Your task to perform on an android device: Open Chrome and go to the settings page Image 0: 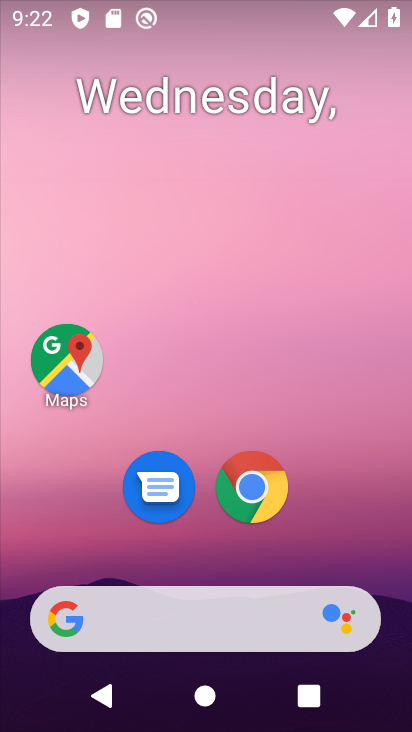
Step 0: click (227, 480)
Your task to perform on an android device: Open Chrome and go to the settings page Image 1: 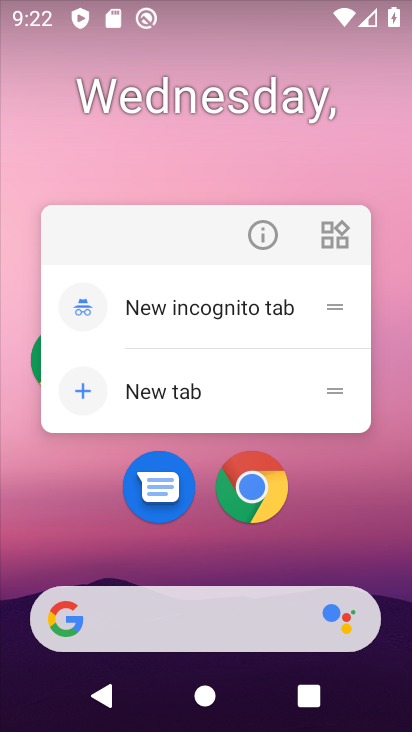
Step 1: click (254, 506)
Your task to perform on an android device: Open Chrome and go to the settings page Image 2: 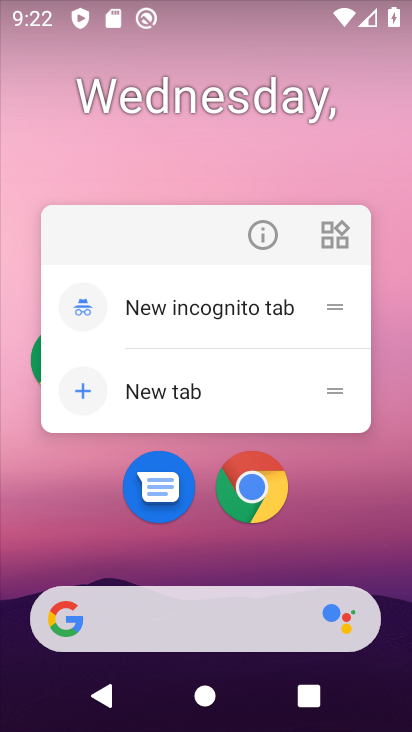
Step 2: click (266, 241)
Your task to perform on an android device: Open Chrome and go to the settings page Image 3: 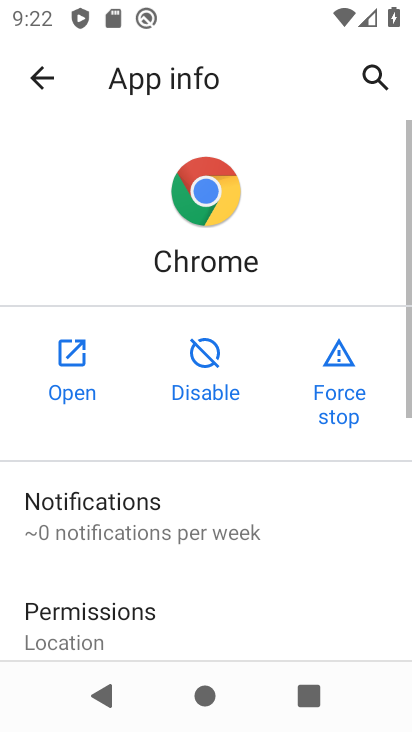
Step 3: click (85, 368)
Your task to perform on an android device: Open Chrome and go to the settings page Image 4: 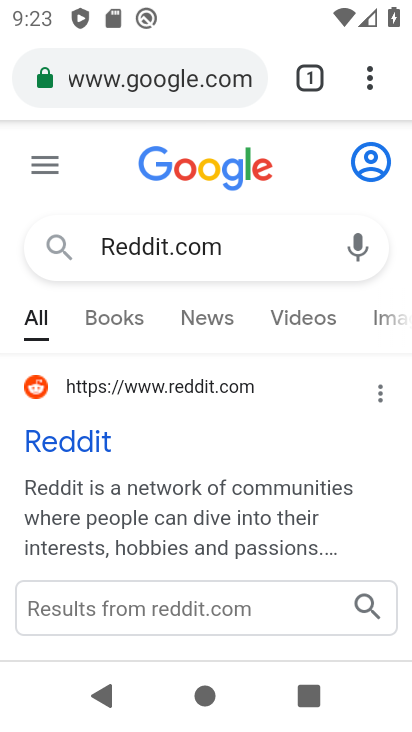
Step 4: click (372, 73)
Your task to perform on an android device: Open Chrome and go to the settings page Image 5: 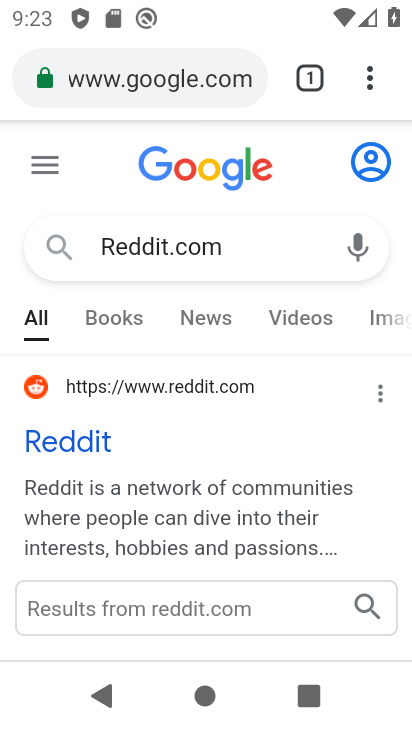
Step 5: click (360, 79)
Your task to perform on an android device: Open Chrome and go to the settings page Image 6: 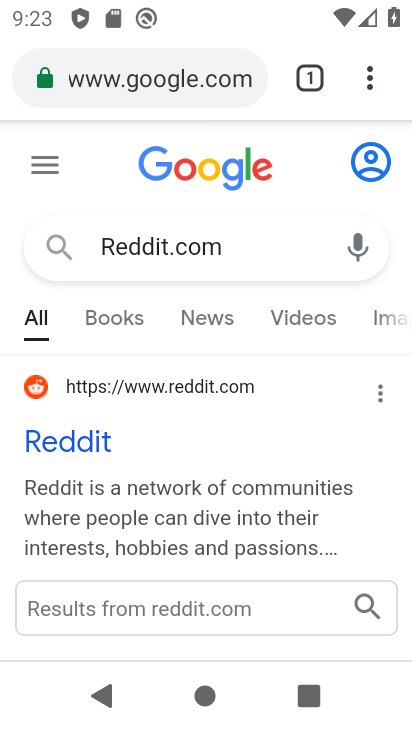
Step 6: click (367, 71)
Your task to perform on an android device: Open Chrome and go to the settings page Image 7: 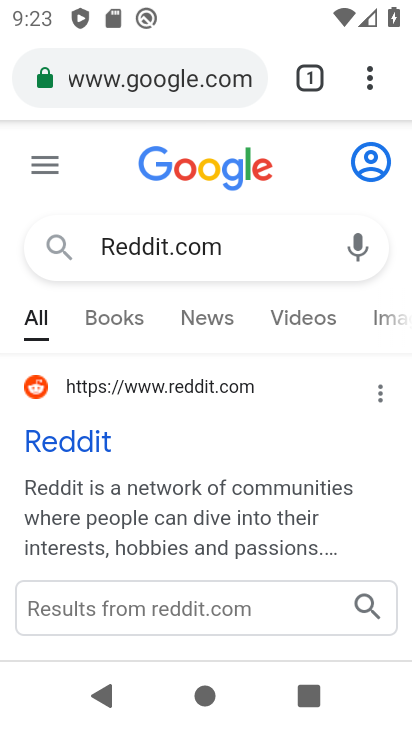
Step 7: click (375, 80)
Your task to perform on an android device: Open Chrome and go to the settings page Image 8: 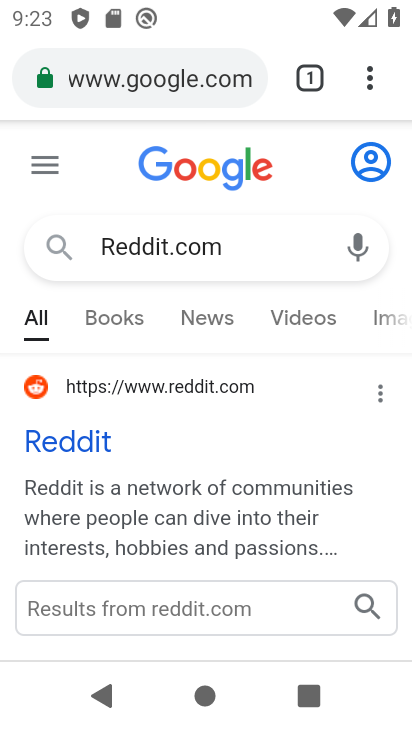
Step 8: click (375, 80)
Your task to perform on an android device: Open Chrome and go to the settings page Image 9: 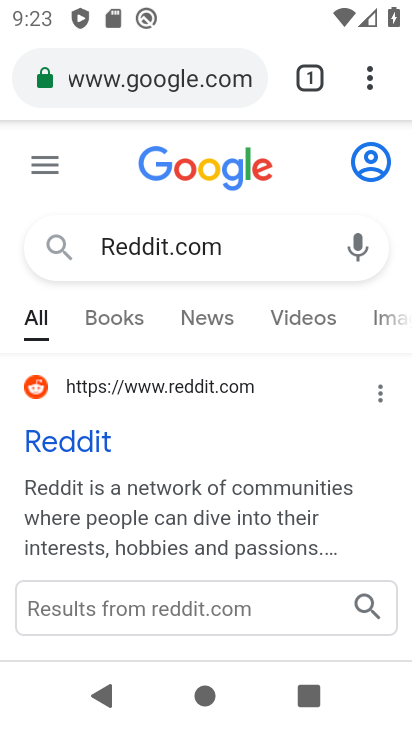
Step 9: click (371, 81)
Your task to perform on an android device: Open Chrome and go to the settings page Image 10: 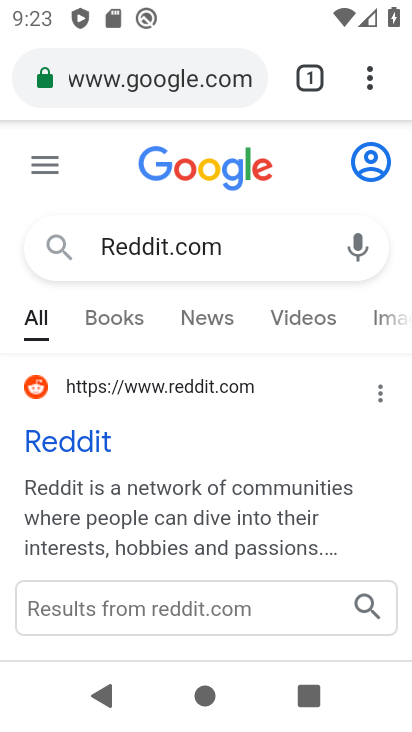
Step 10: click (367, 74)
Your task to perform on an android device: Open Chrome and go to the settings page Image 11: 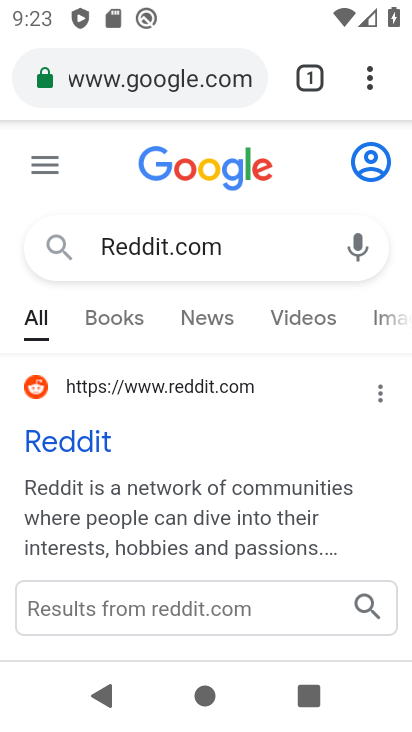
Step 11: click (367, 76)
Your task to perform on an android device: Open Chrome and go to the settings page Image 12: 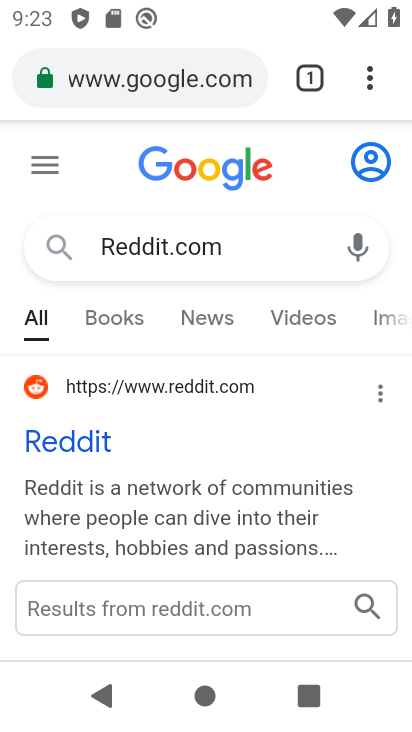
Step 12: click (370, 75)
Your task to perform on an android device: Open Chrome and go to the settings page Image 13: 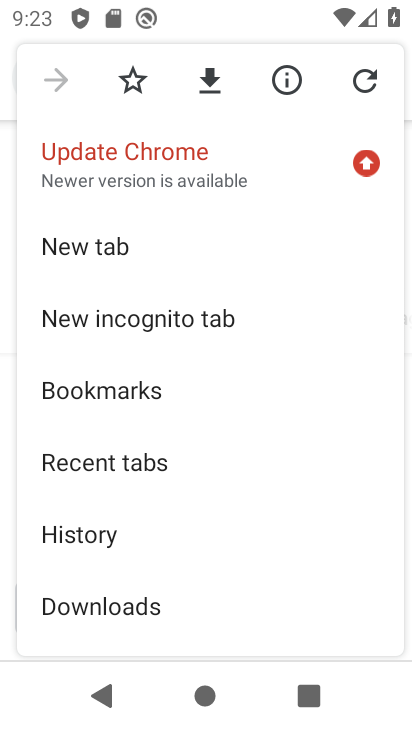
Step 13: drag from (109, 567) to (171, 265)
Your task to perform on an android device: Open Chrome and go to the settings page Image 14: 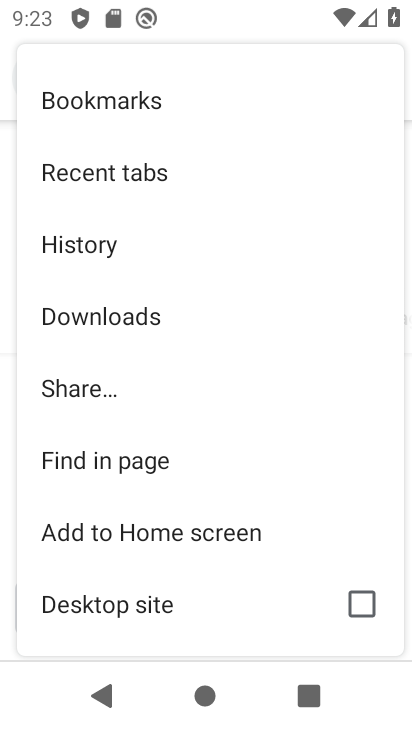
Step 14: drag from (141, 561) to (214, 294)
Your task to perform on an android device: Open Chrome and go to the settings page Image 15: 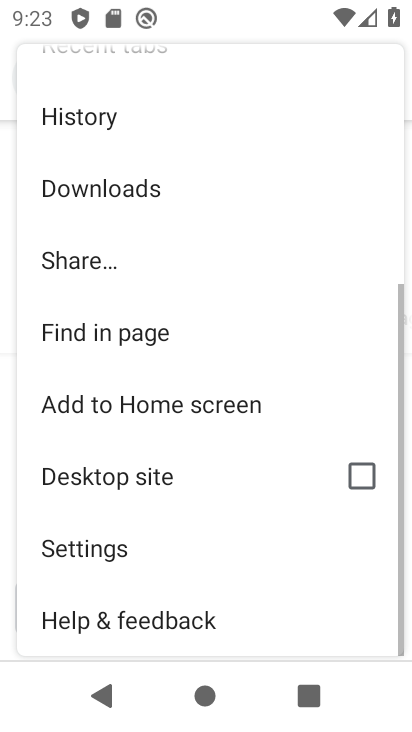
Step 15: click (94, 545)
Your task to perform on an android device: Open Chrome and go to the settings page Image 16: 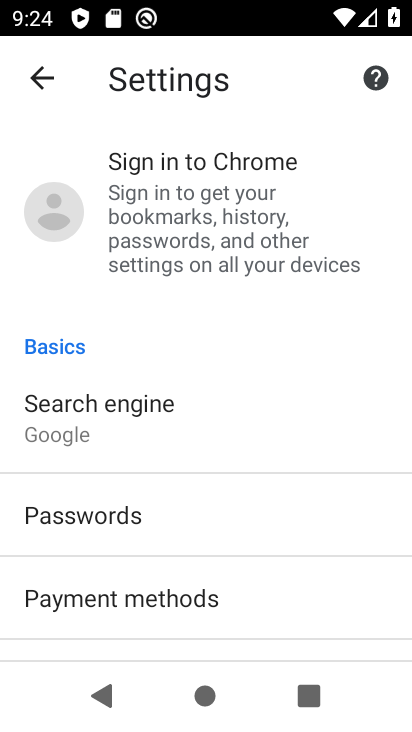
Step 16: task complete